Your task to perform on an android device: turn on notifications settings in the gmail app Image 0: 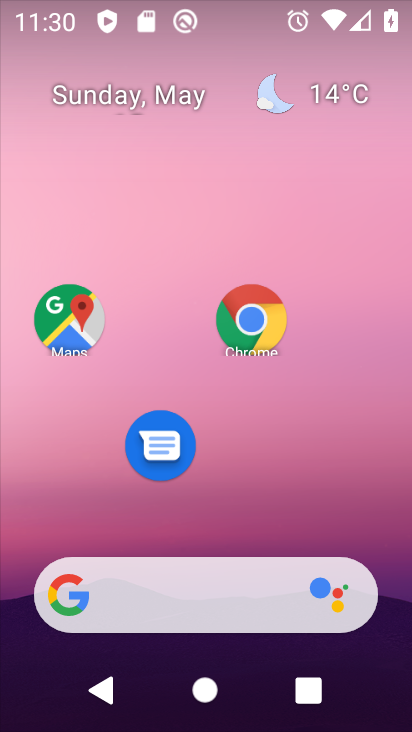
Step 0: press home button
Your task to perform on an android device: turn on notifications settings in the gmail app Image 1: 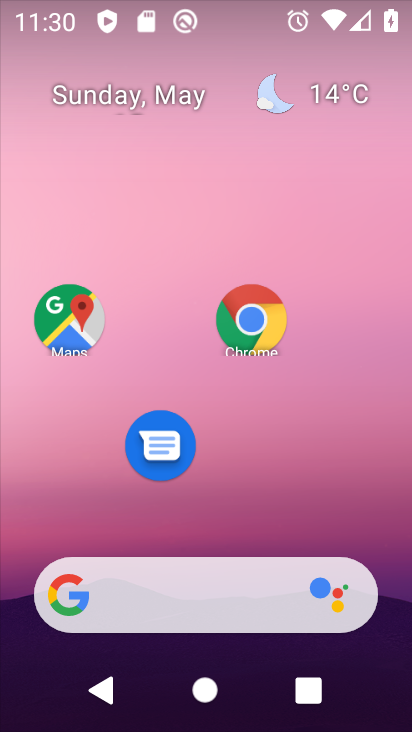
Step 1: drag from (170, 601) to (314, 174)
Your task to perform on an android device: turn on notifications settings in the gmail app Image 2: 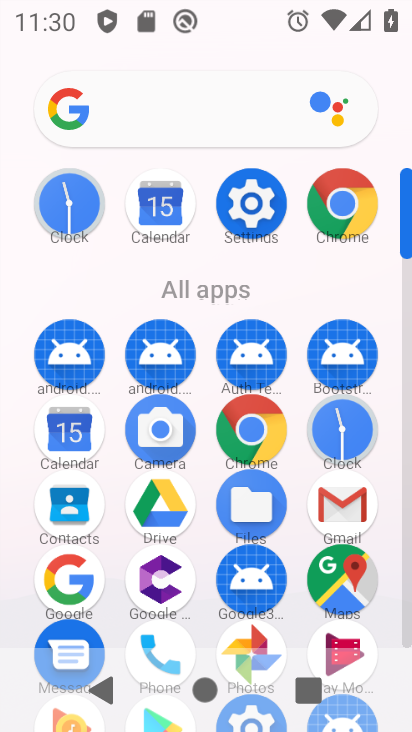
Step 2: click (342, 507)
Your task to perform on an android device: turn on notifications settings in the gmail app Image 3: 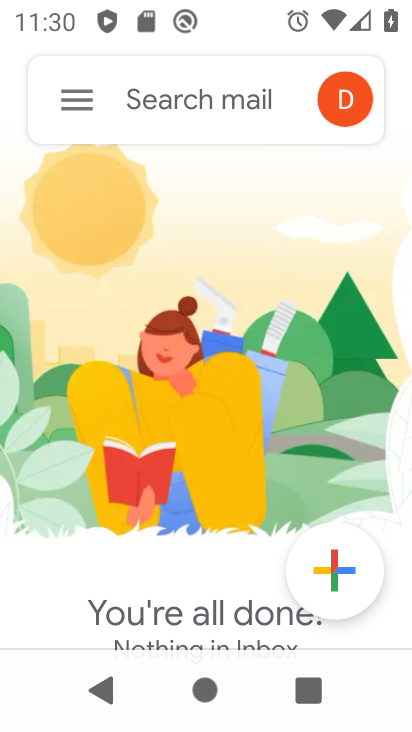
Step 3: click (85, 98)
Your task to perform on an android device: turn on notifications settings in the gmail app Image 4: 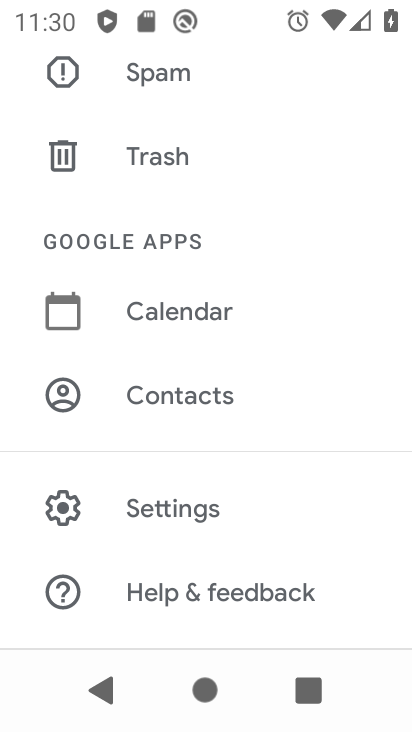
Step 4: click (202, 506)
Your task to perform on an android device: turn on notifications settings in the gmail app Image 5: 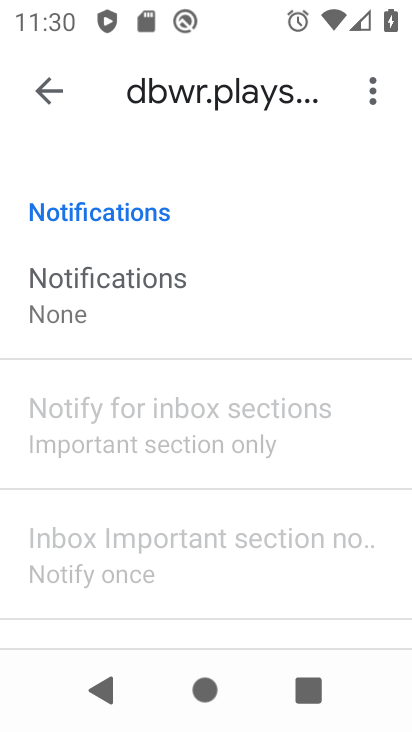
Step 5: click (139, 295)
Your task to perform on an android device: turn on notifications settings in the gmail app Image 6: 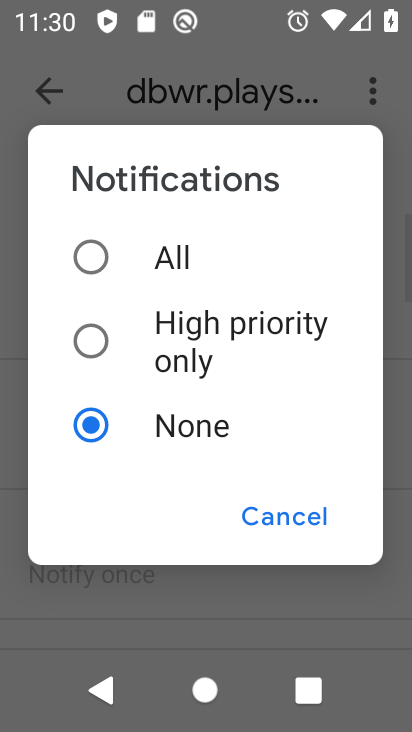
Step 6: click (99, 256)
Your task to perform on an android device: turn on notifications settings in the gmail app Image 7: 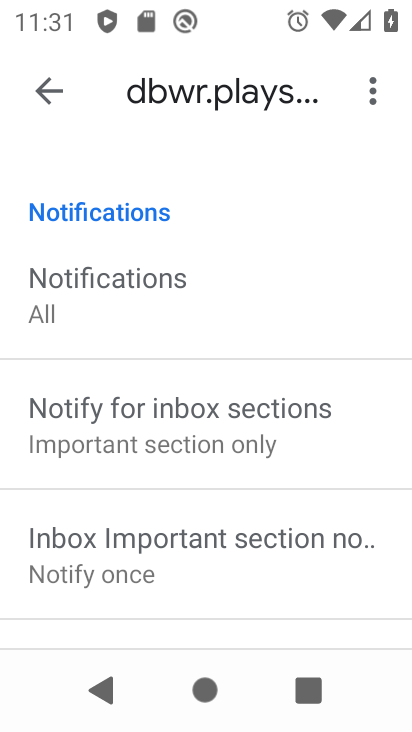
Step 7: task complete